Your task to perform on an android device: Open Chrome and go to the settings page Image 0: 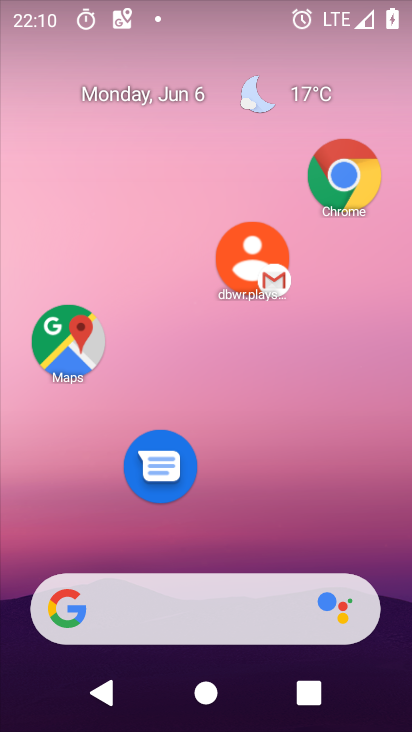
Step 0: click (411, 140)
Your task to perform on an android device: Open Chrome and go to the settings page Image 1: 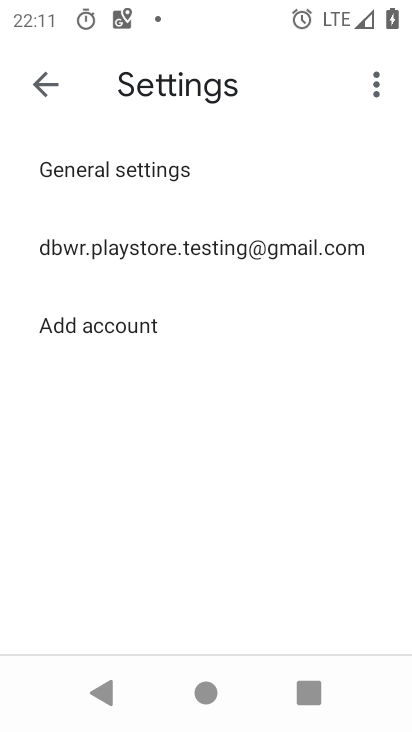
Step 1: press home button
Your task to perform on an android device: Open Chrome and go to the settings page Image 2: 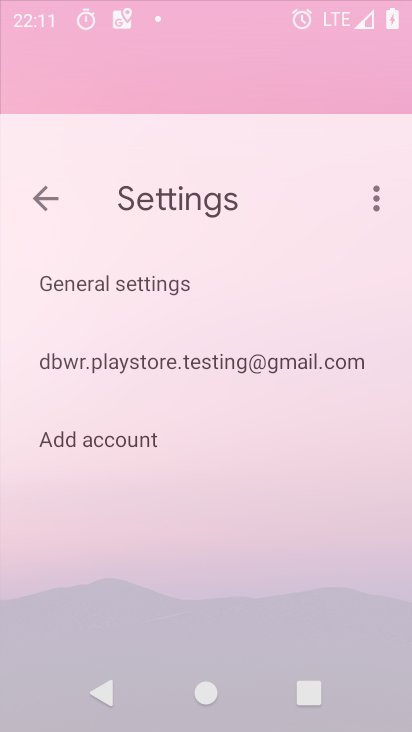
Step 2: drag from (251, 558) to (352, 98)
Your task to perform on an android device: Open Chrome and go to the settings page Image 3: 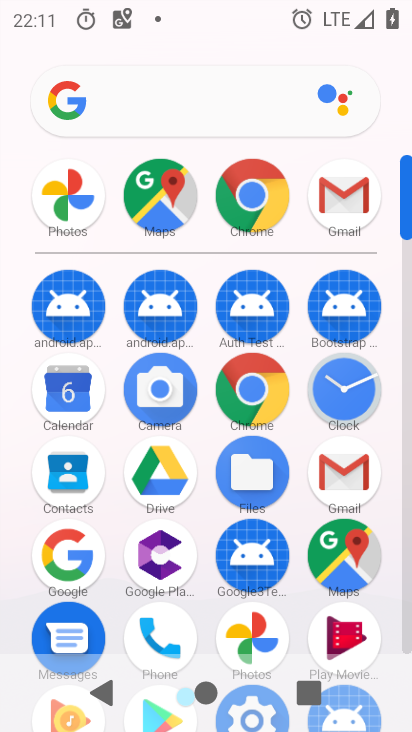
Step 3: click (245, 207)
Your task to perform on an android device: Open Chrome and go to the settings page Image 4: 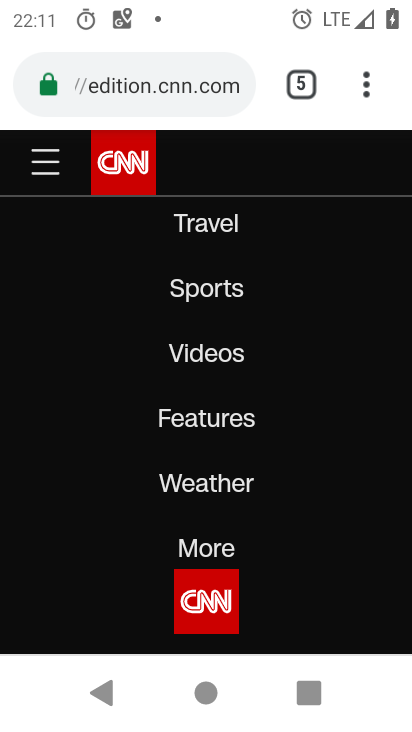
Step 4: task complete